Your task to perform on an android device: turn off wifi Image 0: 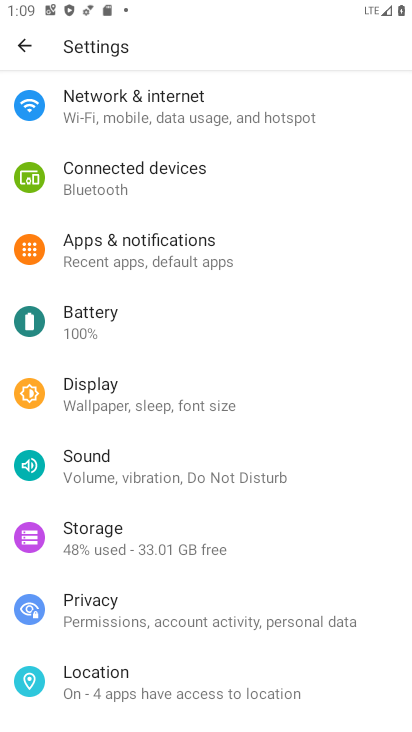
Step 0: click (280, 118)
Your task to perform on an android device: turn off wifi Image 1: 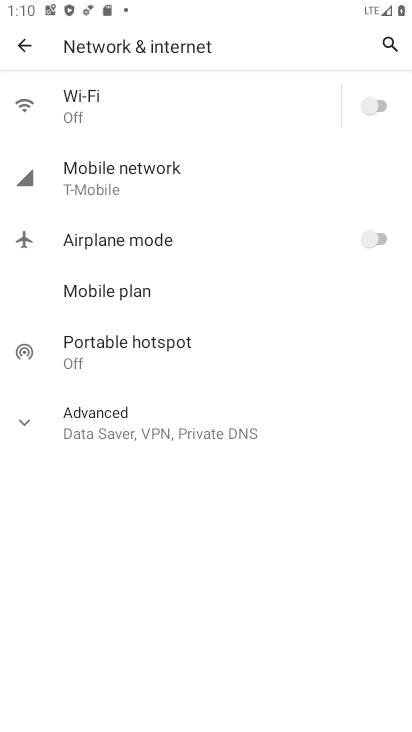
Step 1: task complete